Your task to perform on an android device: Search for Mexican restaurants on Maps Image 0: 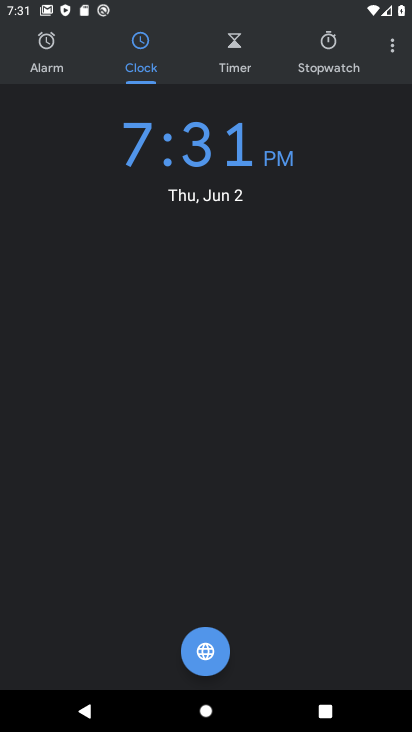
Step 0: press home button
Your task to perform on an android device: Search for Mexican restaurants on Maps Image 1: 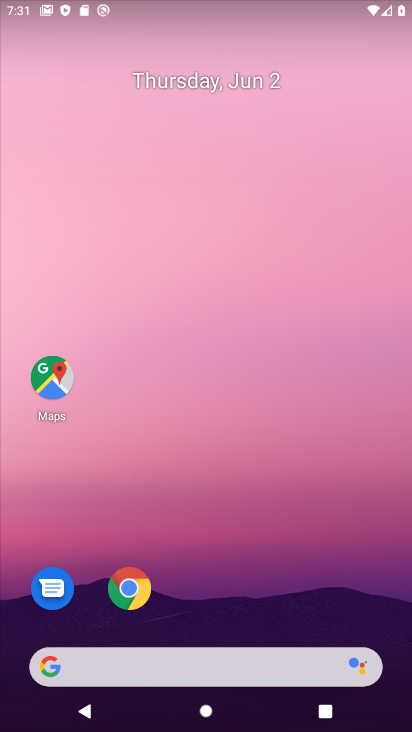
Step 1: drag from (198, 471) to (187, 1)
Your task to perform on an android device: Search for Mexican restaurants on Maps Image 2: 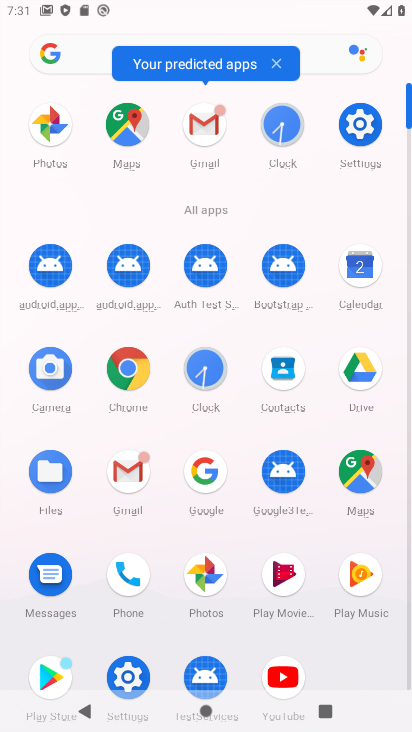
Step 2: click (362, 476)
Your task to perform on an android device: Search for Mexican restaurants on Maps Image 3: 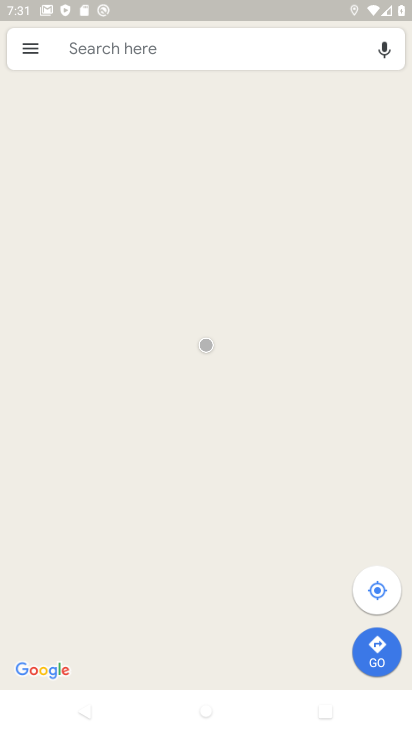
Step 3: click (291, 51)
Your task to perform on an android device: Search for Mexican restaurants on Maps Image 4: 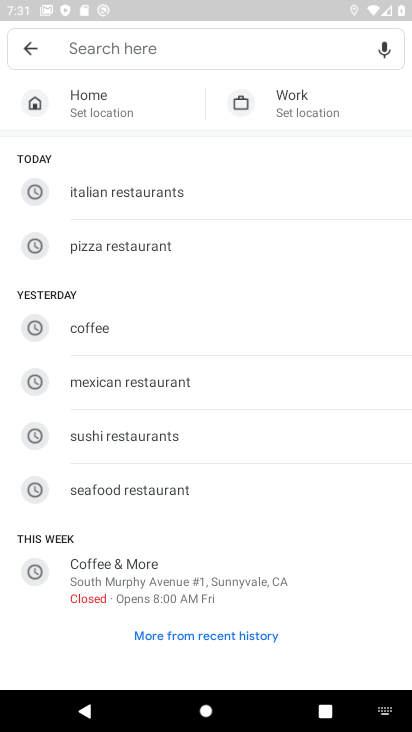
Step 4: click (261, 380)
Your task to perform on an android device: Search for Mexican restaurants on Maps Image 5: 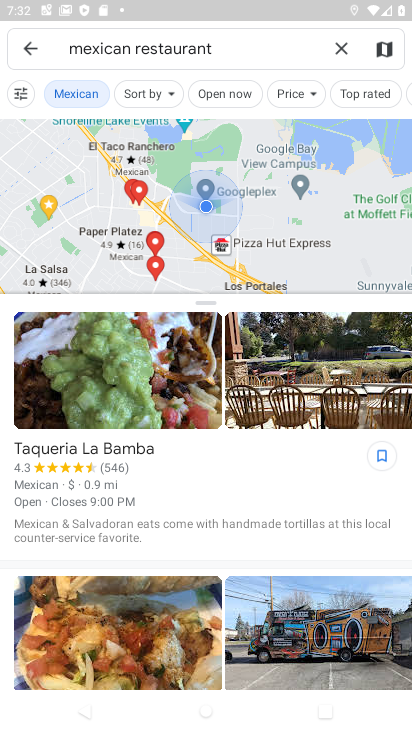
Step 5: task complete